Your task to perform on an android device: turn off javascript in the chrome app Image 0: 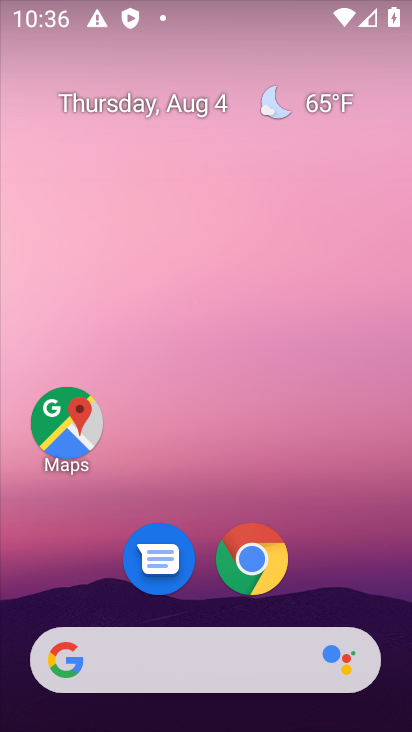
Step 0: click (260, 561)
Your task to perform on an android device: turn off javascript in the chrome app Image 1: 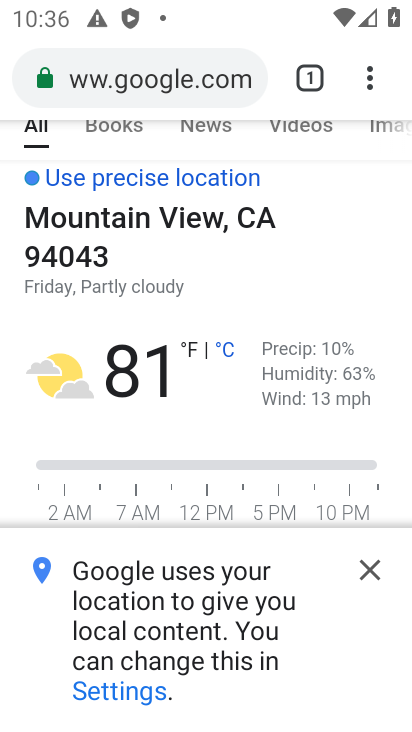
Step 1: drag from (368, 85) to (178, 620)
Your task to perform on an android device: turn off javascript in the chrome app Image 2: 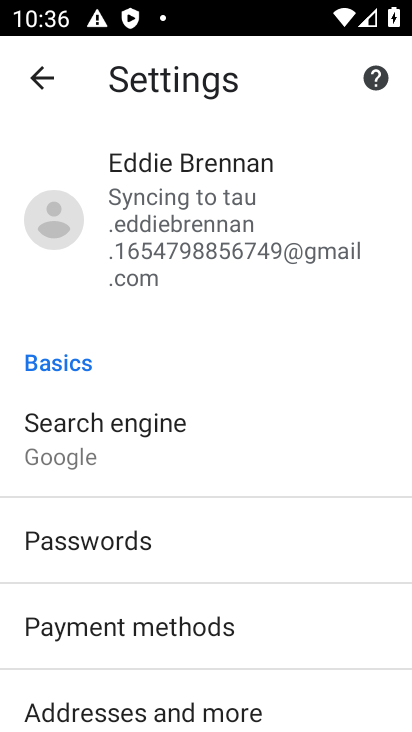
Step 2: drag from (197, 682) to (143, 162)
Your task to perform on an android device: turn off javascript in the chrome app Image 3: 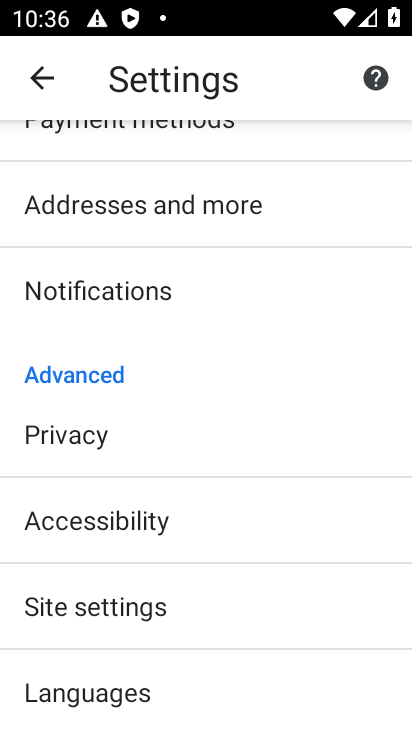
Step 3: click (169, 629)
Your task to perform on an android device: turn off javascript in the chrome app Image 4: 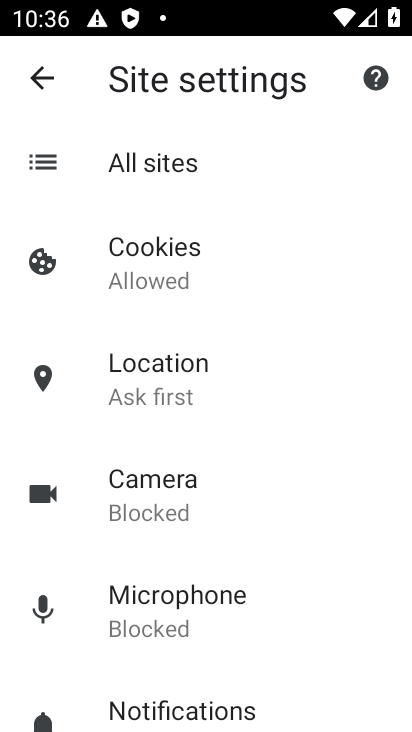
Step 4: drag from (145, 649) to (112, 186)
Your task to perform on an android device: turn off javascript in the chrome app Image 5: 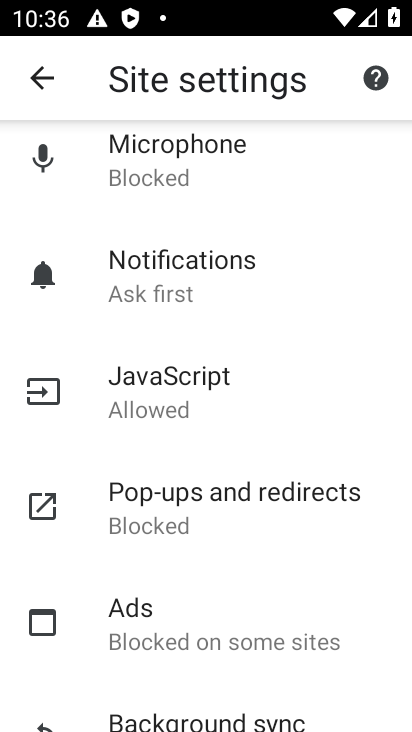
Step 5: click (174, 408)
Your task to perform on an android device: turn off javascript in the chrome app Image 6: 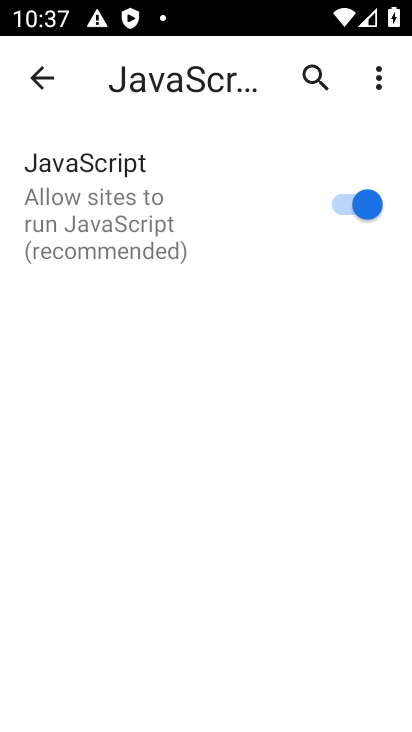
Step 6: click (361, 219)
Your task to perform on an android device: turn off javascript in the chrome app Image 7: 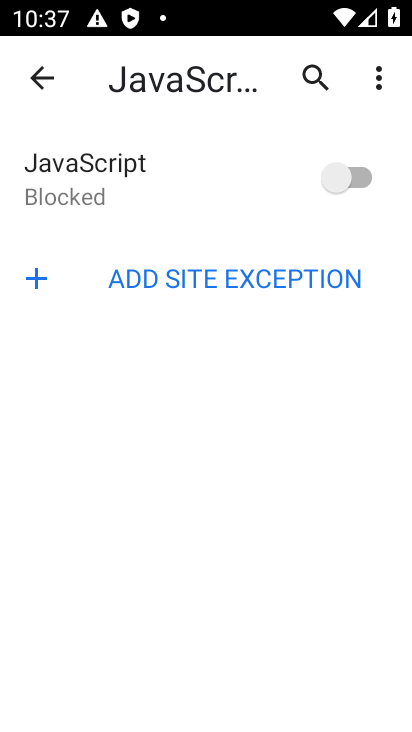
Step 7: task complete